Your task to perform on an android device: Open Android settings Image 0: 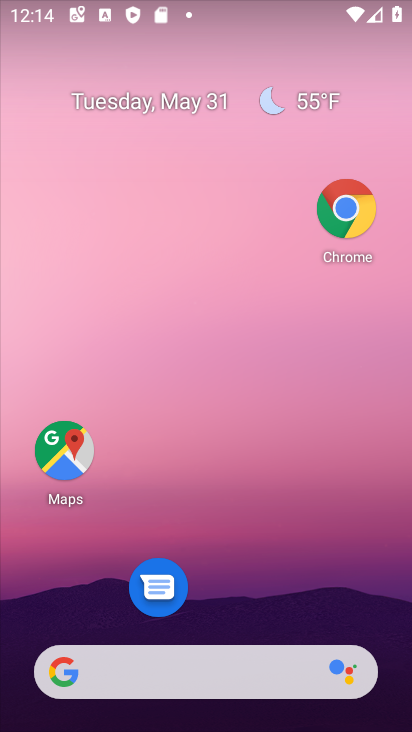
Step 0: drag from (269, 610) to (246, 13)
Your task to perform on an android device: Open Android settings Image 1: 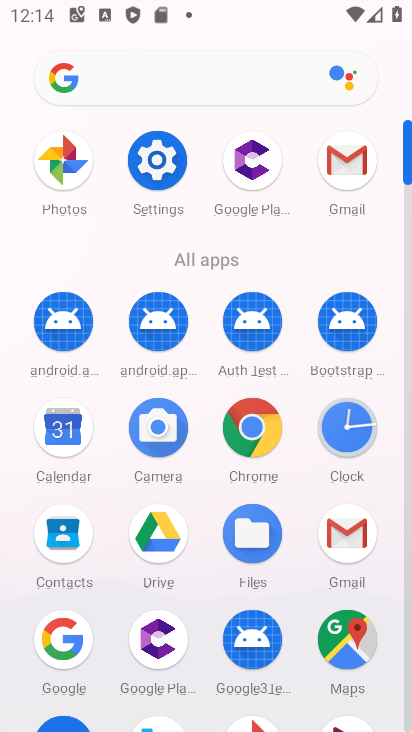
Step 1: click (166, 168)
Your task to perform on an android device: Open Android settings Image 2: 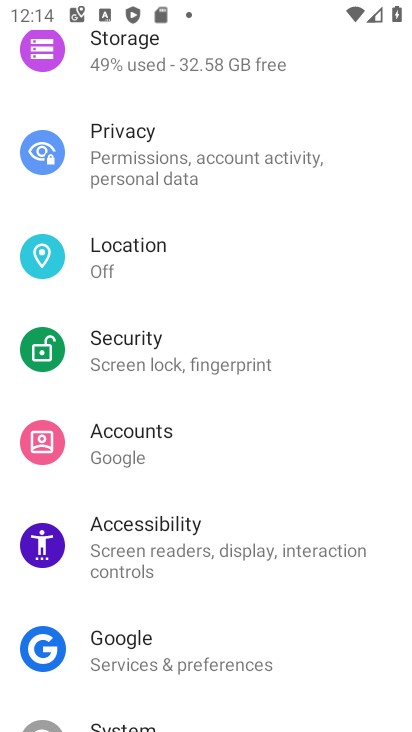
Step 2: task complete